Your task to perform on an android device: Toggle the flashlight Image 0: 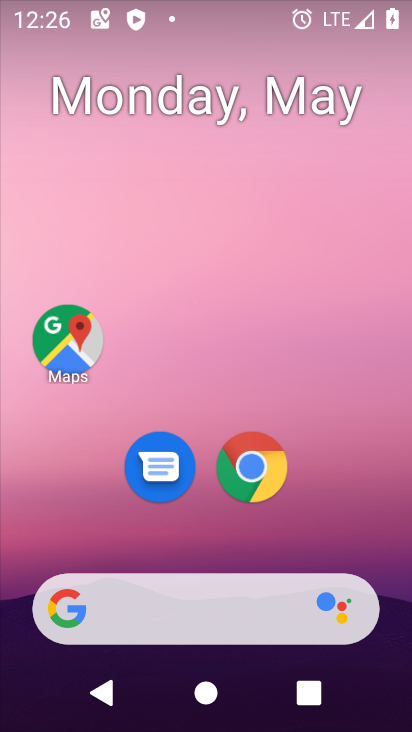
Step 0: drag from (193, 5) to (229, 690)
Your task to perform on an android device: Toggle the flashlight Image 1: 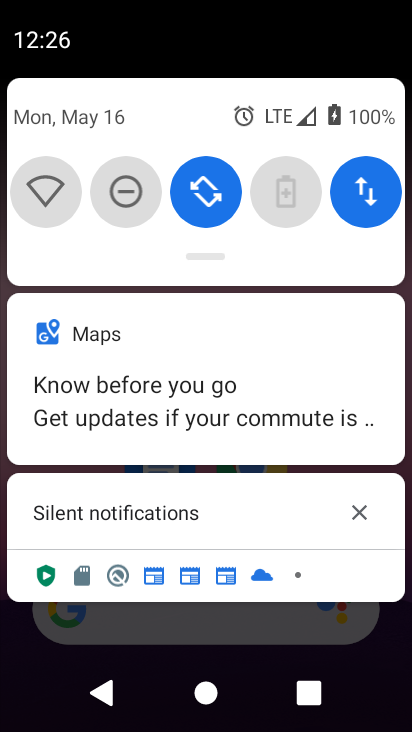
Step 1: task complete